Your task to perform on an android device: see tabs open on other devices in the chrome app Image 0: 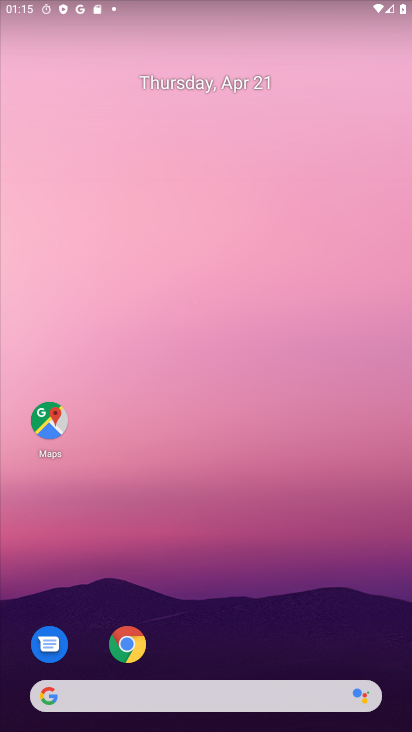
Step 0: click (133, 641)
Your task to perform on an android device: see tabs open on other devices in the chrome app Image 1: 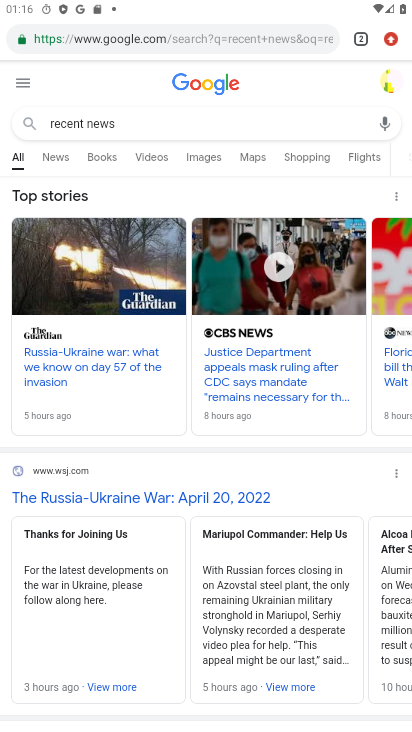
Step 1: task complete